Your task to perform on an android device: Go to battery settings Image 0: 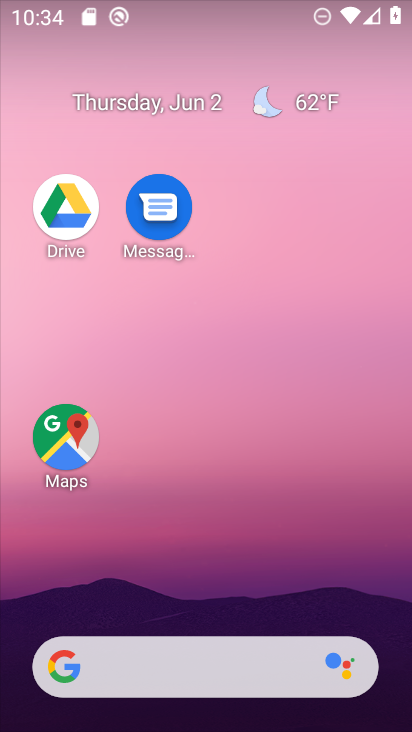
Step 0: drag from (192, 627) to (214, 62)
Your task to perform on an android device: Go to battery settings Image 1: 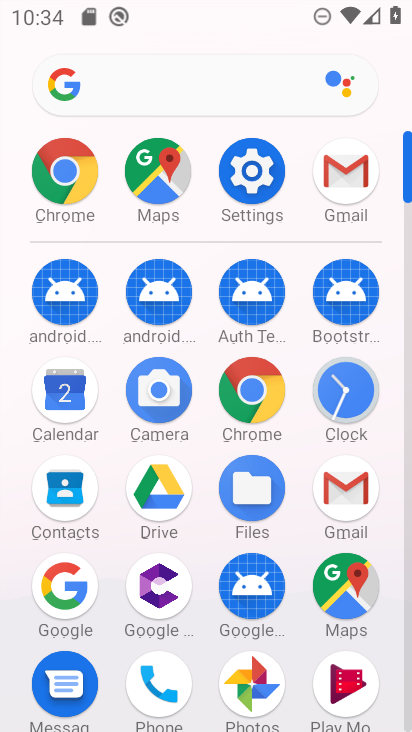
Step 1: click (245, 184)
Your task to perform on an android device: Go to battery settings Image 2: 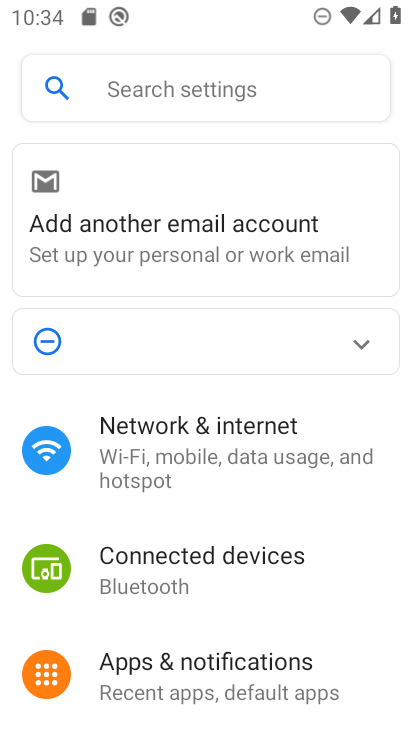
Step 2: drag from (116, 597) to (128, 249)
Your task to perform on an android device: Go to battery settings Image 3: 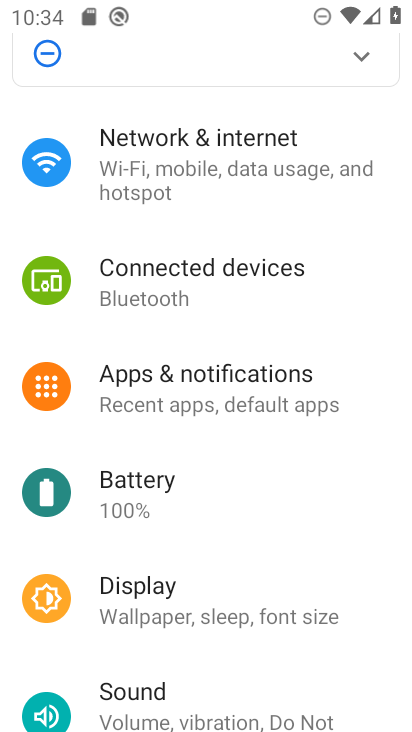
Step 3: click (159, 494)
Your task to perform on an android device: Go to battery settings Image 4: 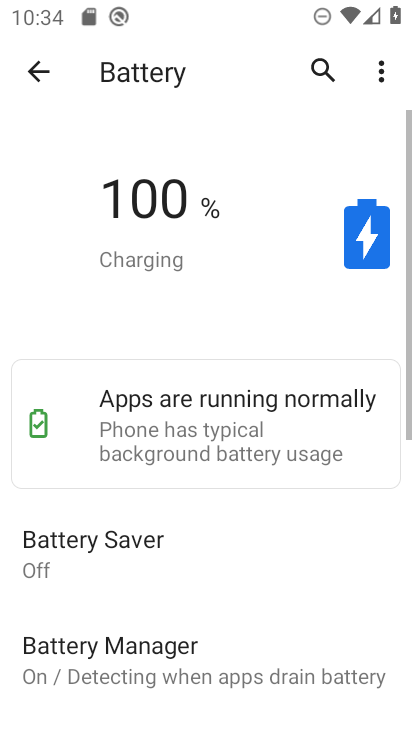
Step 4: task complete